Your task to perform on an android device: What's the weather? Image 0: 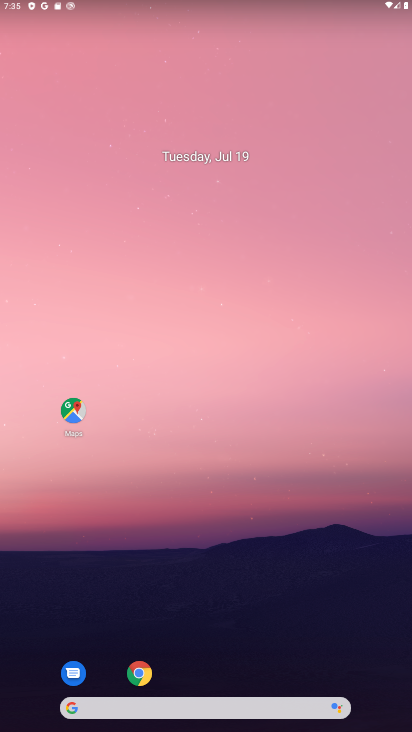
Step 0: click (240, 702)
Your task to perform on an android device: What's the weather? Image 1: 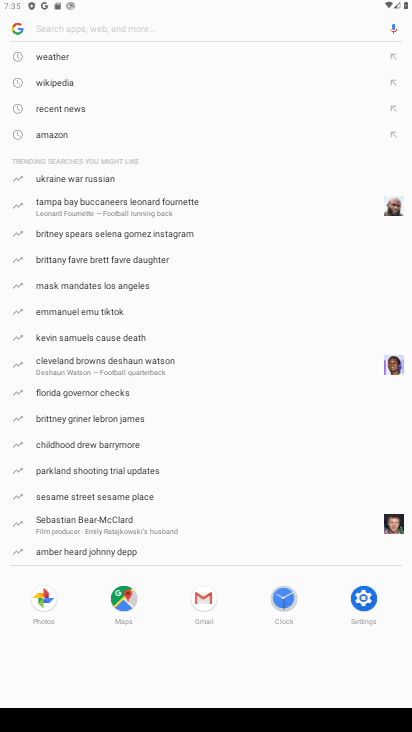
Step 1: click (88, 58)
Your task to perform on an android device: What's the weather? Image 2: 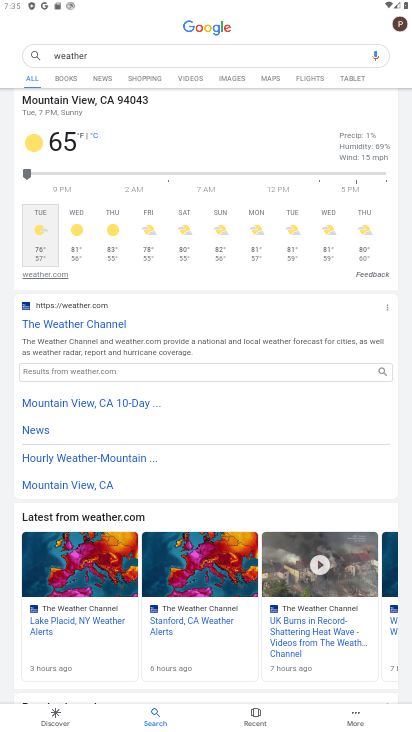
Step 2: task complete